Your task to perform on an android device: toggle javascript in the chrome app Image 0: 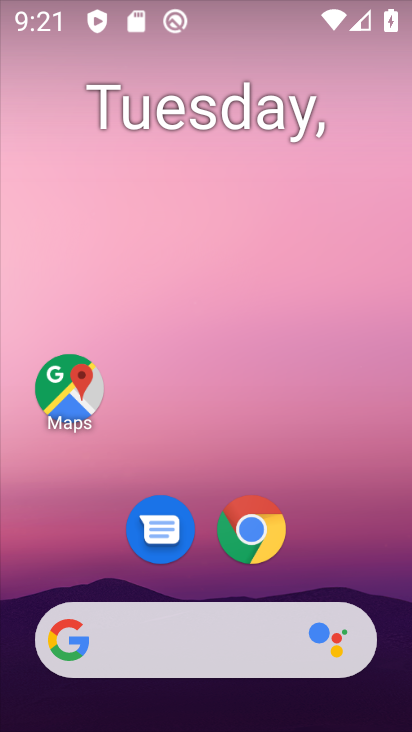
Step 0: click (253, 526)
Your task to perform on an android device: toggle javascript in the chrome app Image 1: 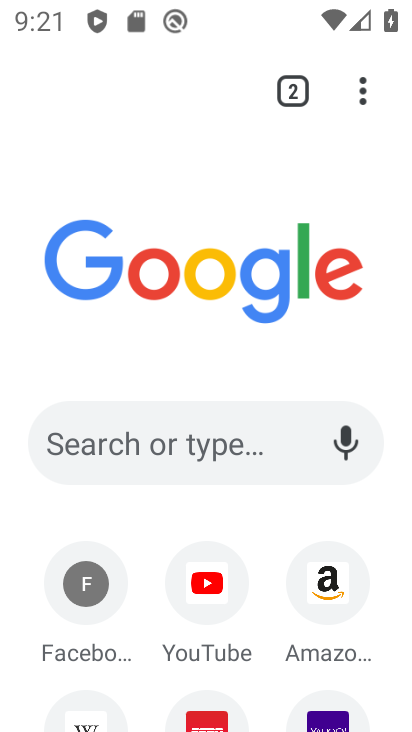
Step 1: click (366, 83)
Your task to perform on an android device: toggle javascript in the chrome app Image 2: 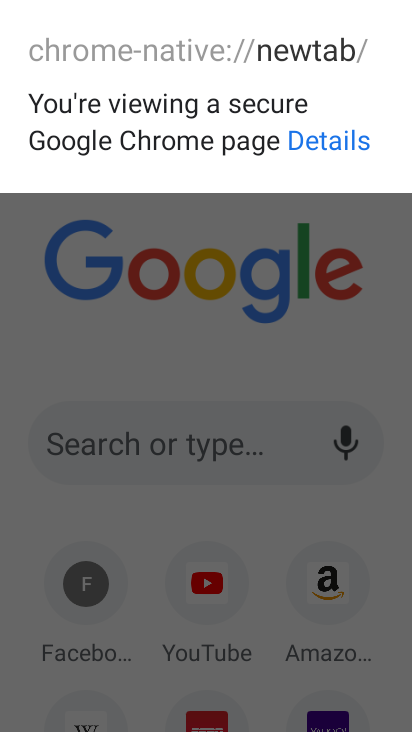
Step 2: click (170, 258)
Your task to perform on an android device: toggle javascript in the chrome app Image 3: 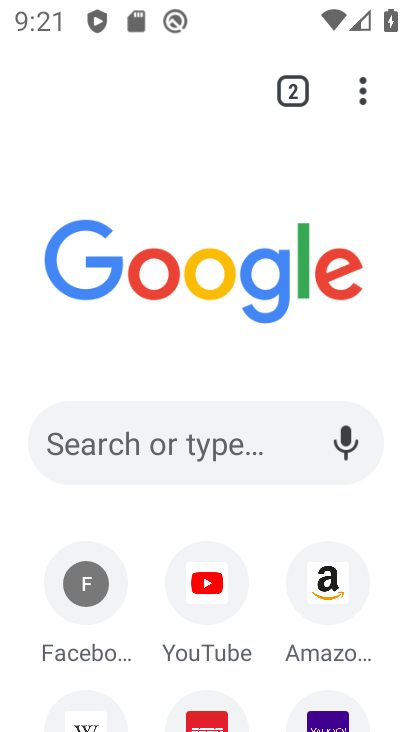
Step 3: click (363, 85)
Your task to perform on an android device: toggle javascript in the chrome app Image 4: 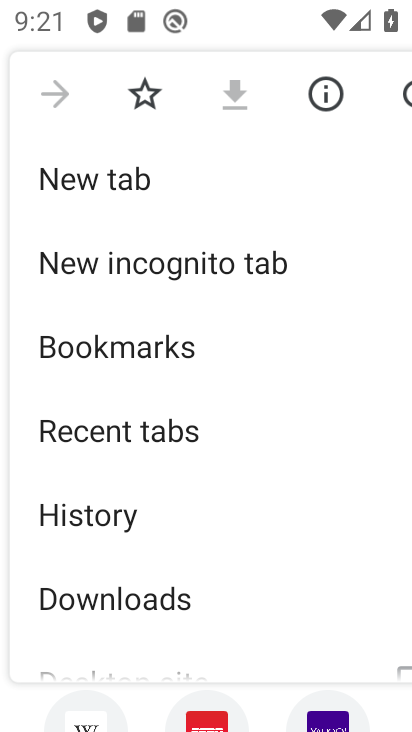
Step 4: drag from (147, 542) to (153, 105)
Your task to perform on an android device: toggle javascript in the chrome app Image 5: 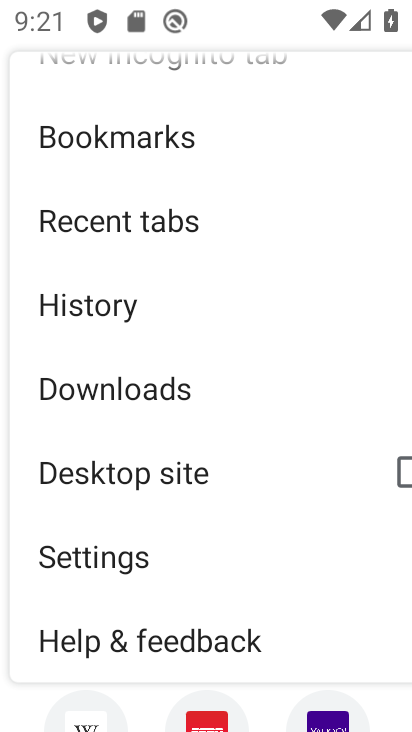
Step 5: click (93, 543)
Your task to perform on an android device: toggle javascript in the chrome app Image 6: 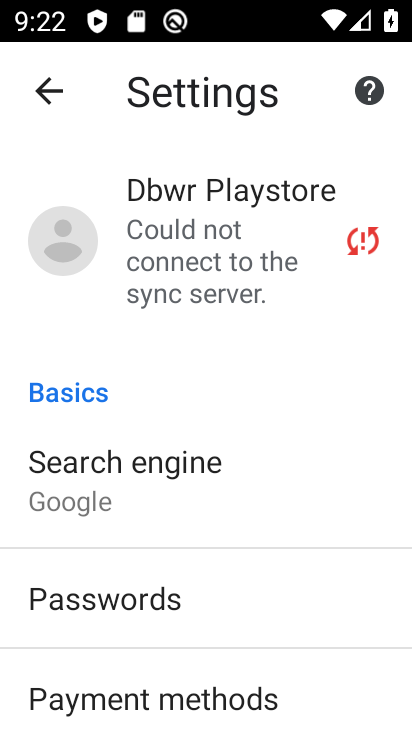
Step 6: drag from (172, 554) to (139, 196)
Your task to perform on an android device: toggle javascript in the chrome app Image 7: 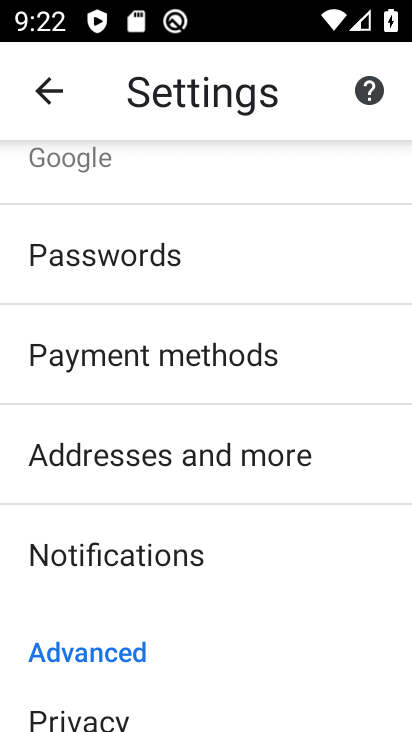
Step 7: drag from (144, 539) to (137, 159)
Your task to perform on an android device: toggle javascript in the chrome app Image 8: 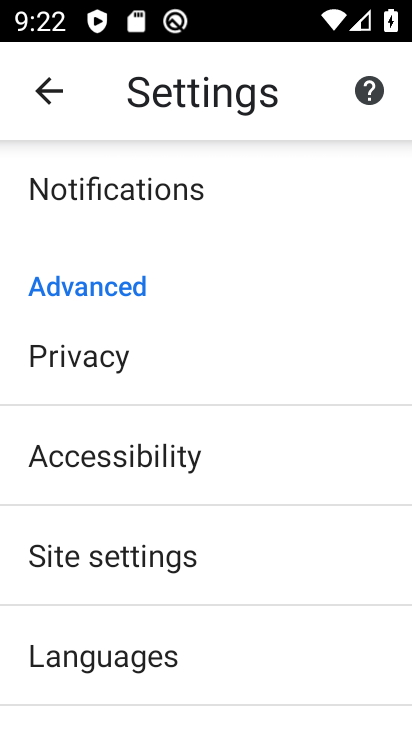
Step 8: click (128, 549)
Your task to perform on an android device: toggle javascript in the chrome app Image 9: 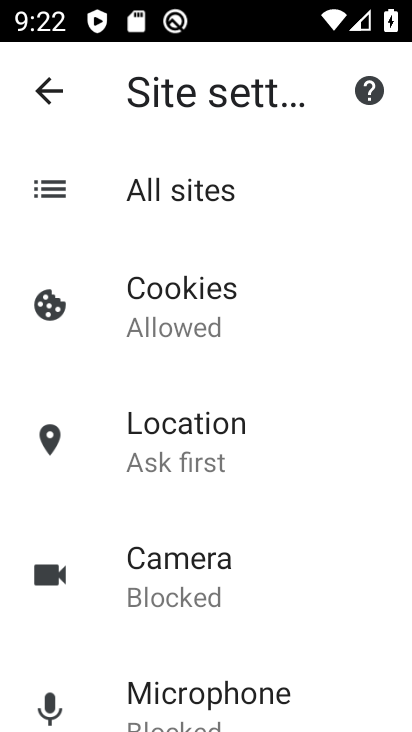
Step 9: drag from (183, 601) to (182, 127)
Your task to perform on an android device: toggle javascript in the chrome app Image 10: 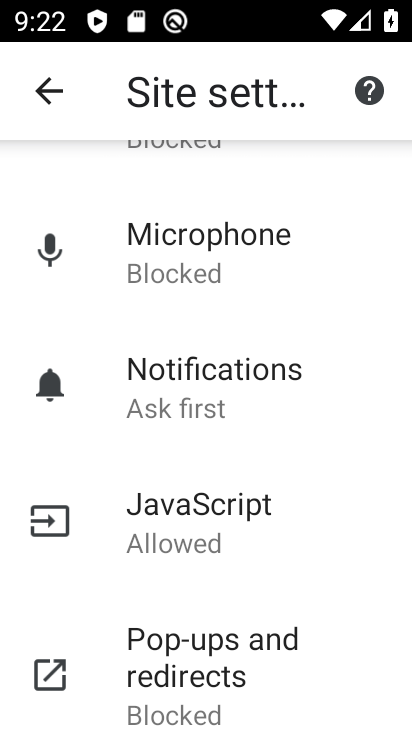
Step 10: click (217, 501)
Your task to perform on an android device: toggle javascript in the chrome app Image 11: 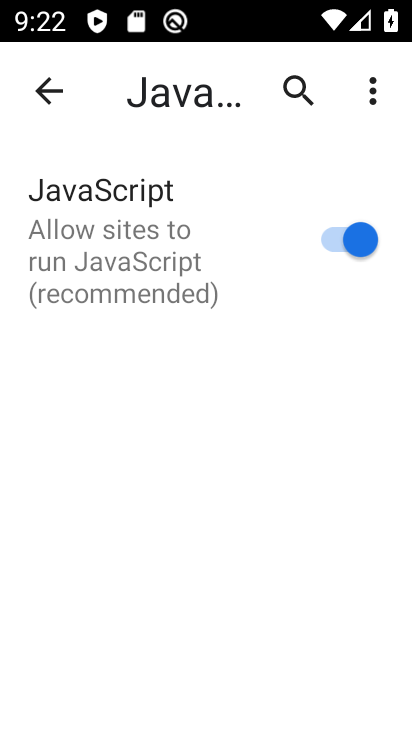
Step 11: click (337, 252)
Your task to perform on an android device: toggle javascript in the chrome app Image 12: 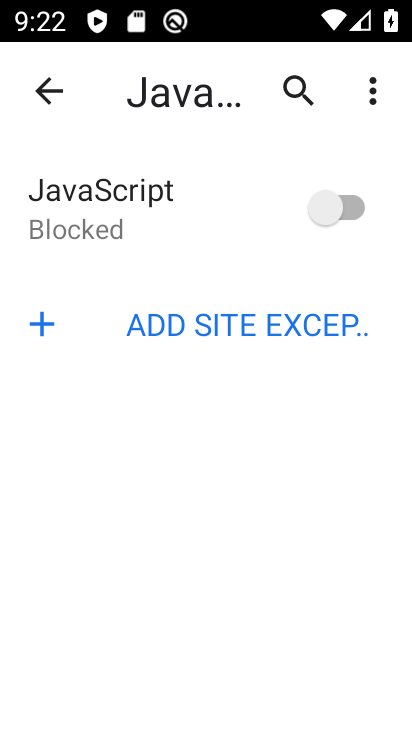
Step 12: task complete